Your task to perform on an android device: turn pop-ups off in chrome Image 0: 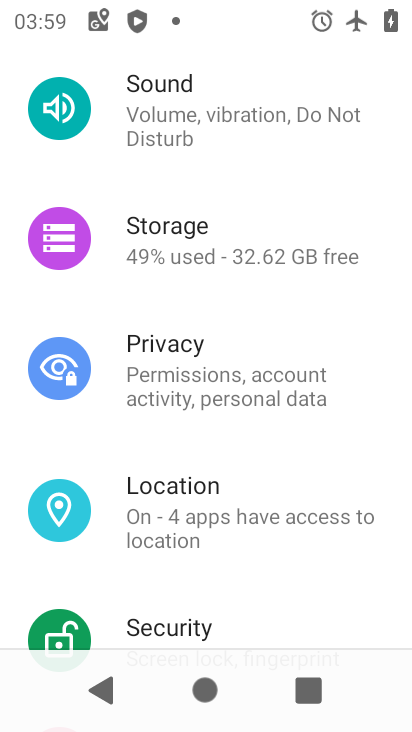
Step 0: press home button
Your task to perform on an android device: turn pop-ups off in chrome Image 1: 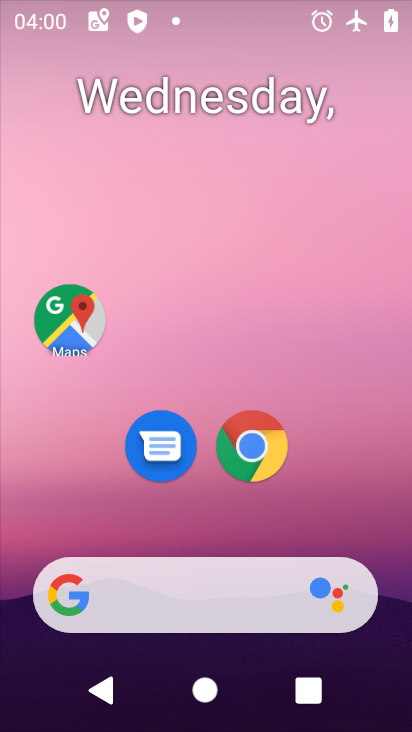
Step 1: click (256, 474)
Your task to perform on an android device: turn pop-ups off in chrome Image 2: 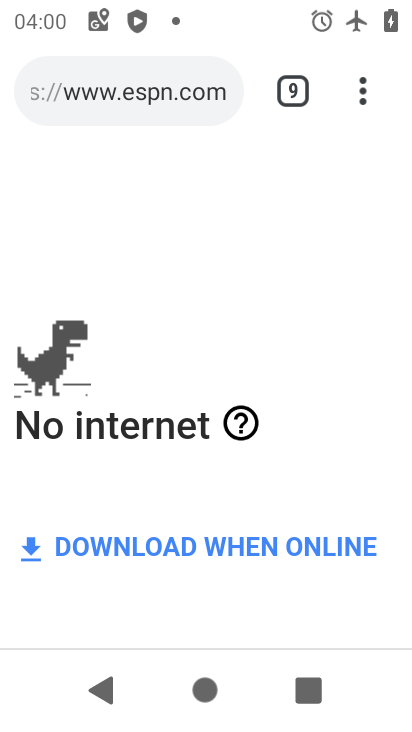
Step 2: drag from (365, 94) to (121, 492)
Your task to perform on an android device: turn pop-ups off in chrome Image 3: 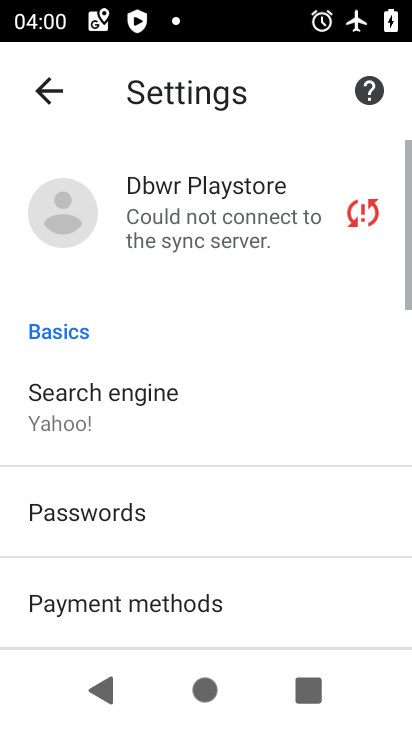
Step 3: drag from (185, 570) to (223, 216)
Your task to perform on an android device: turn pop-ups off in chrome Image 4: 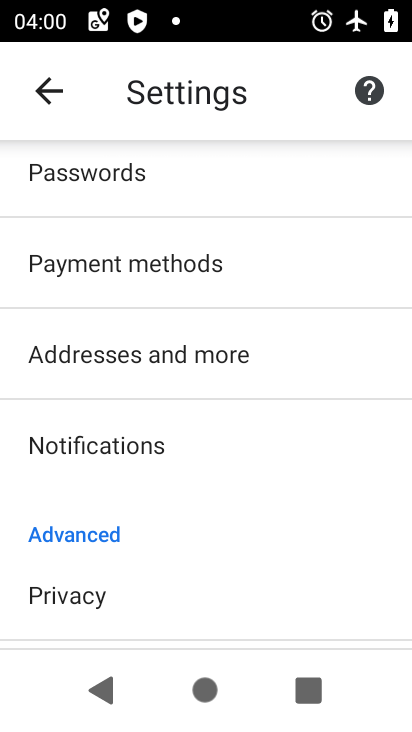
Step 4: drag from (231, 557) to (229, 277)
Your task to perform on an android device: turn pop-ups off in chrome Image 5: 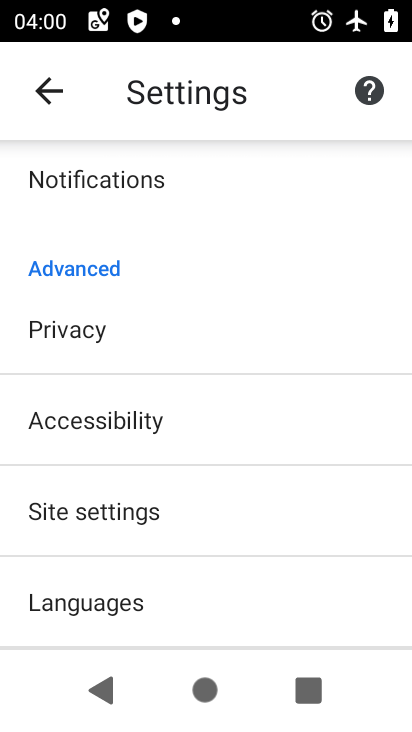
Step 5: click (188, 511)
Your task to perform on an android device: turn pop-ups off in chrome Image 6: 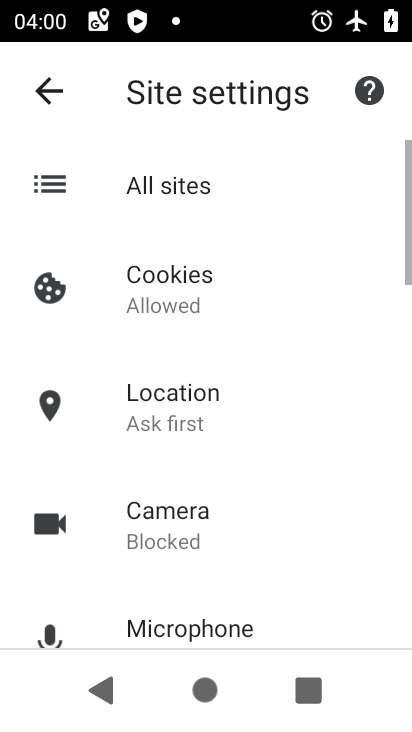
Step 6: drag from (209, 579) to (213, 215)
Your task to perform on an android device: turn pop-ups off in chrome Image 7: 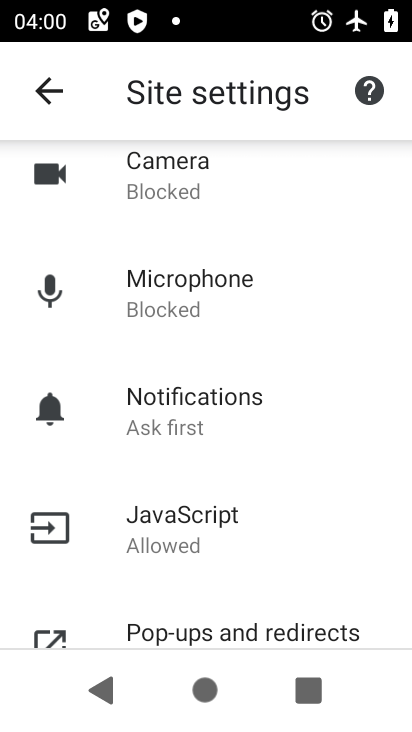
Step 7: drag from (190, 581) to (204, 384)
Your task to perform on an android device: turn pop-ups off in chrome Image 8: 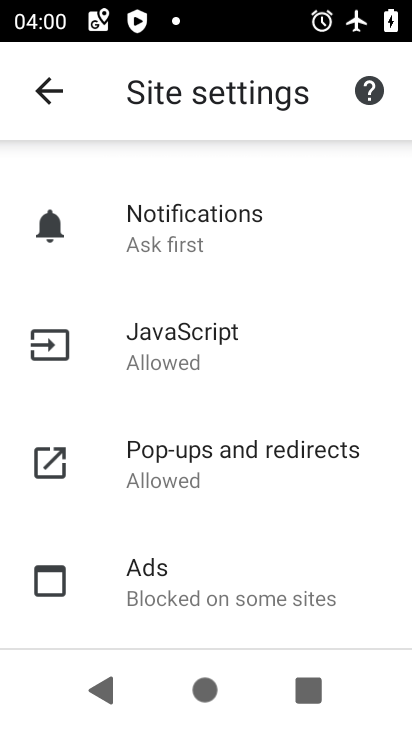
Step 8: click (203, 450)
Your task to perform on an android device: turn pop-ups off in chrome Image 9: 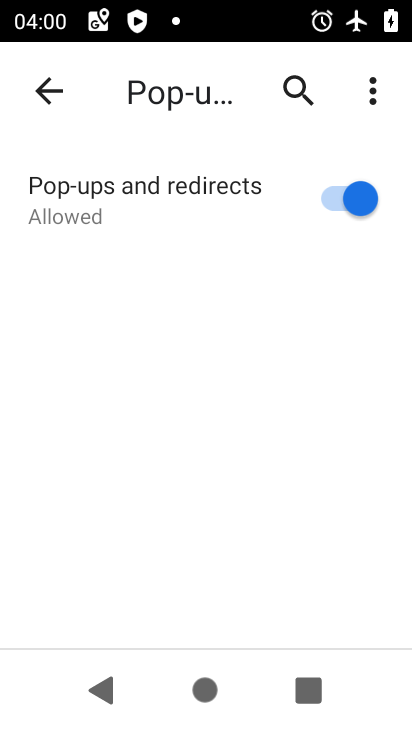
Step 9: click (329, 192)
Your task to perform on an android device: turn pop-ups off in chrome Image 10: 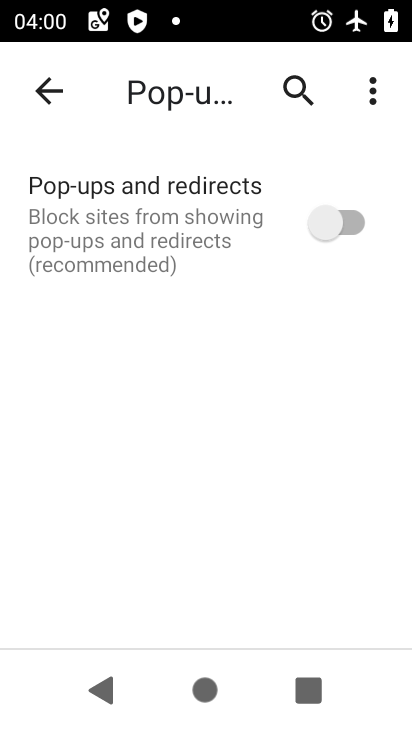
Step 10: task complete